Your task to perform on an android device: Open Google Chrome and click the shortcut for Amazon.com Image 0: 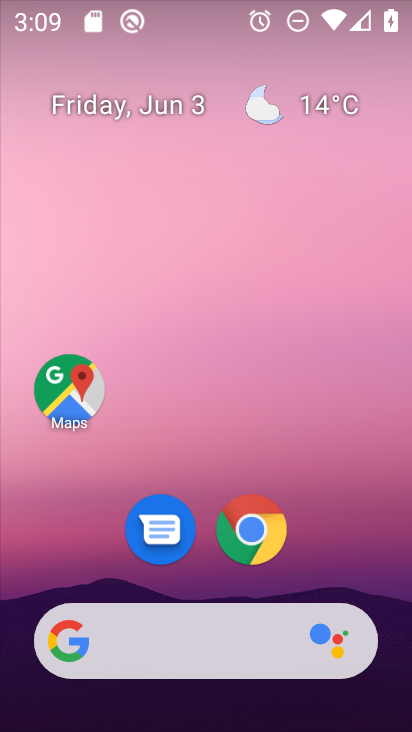
Step 0: drag from (363, 564) to (352, 203)
Your task to perform on an android device: Open Google Chrome and click the shortcut for Amazon.com Image 1: 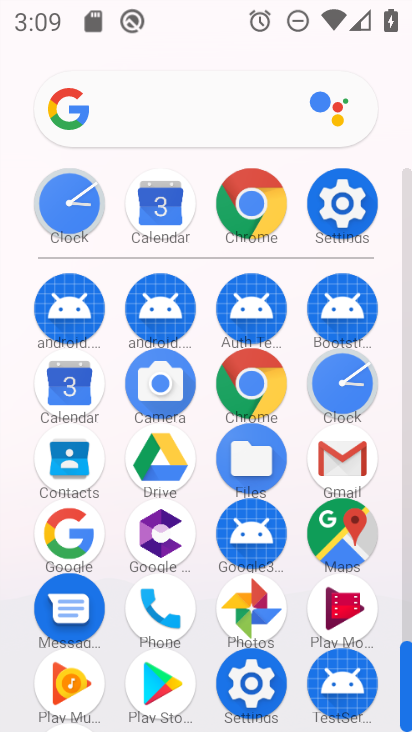
Step 1: click (274, 394)
Your task to perform on an android device: Open Google Chrome and click the shortcut for Amazon.com Image 2: 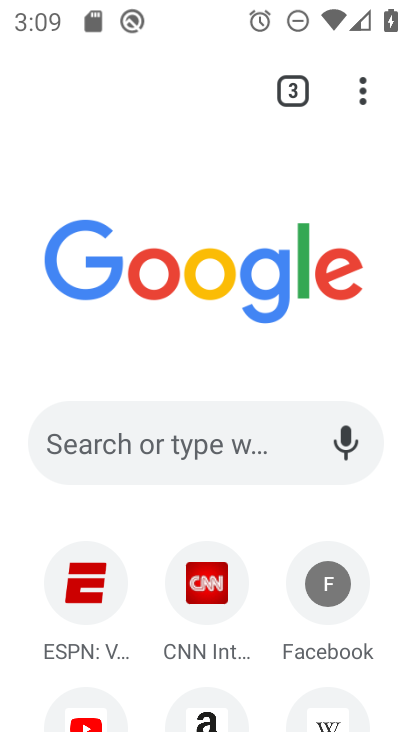
Step 2: drag from (266, 502) to (264, 400)
Your task to perform on an android device: Open Google Chrome and click the shortcut for Amazon.com Image 3: 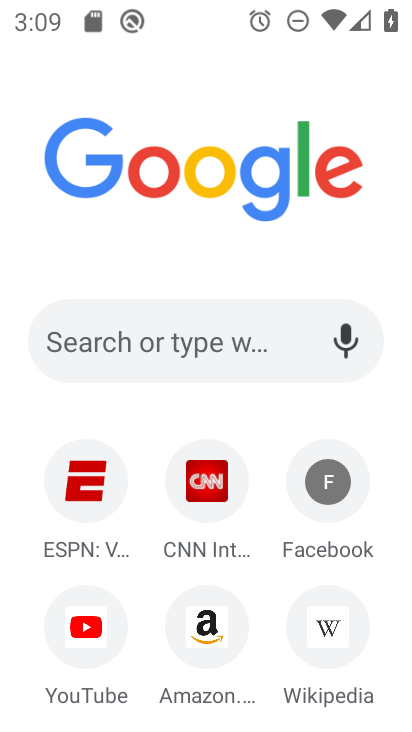
Step 3: drag from (250, 580) to (257, 367)
Your task to perform on an android device: Open Google Chrome and click the shortcut for Amazon.com Image 4: 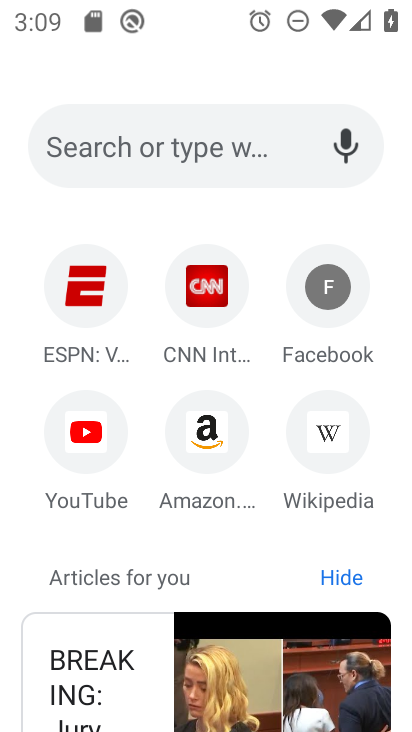
Step 4: click (224, 439)
Your task to perform on an android device: Open Google Chrome and click the shortcut for Amazon.com Image 5: 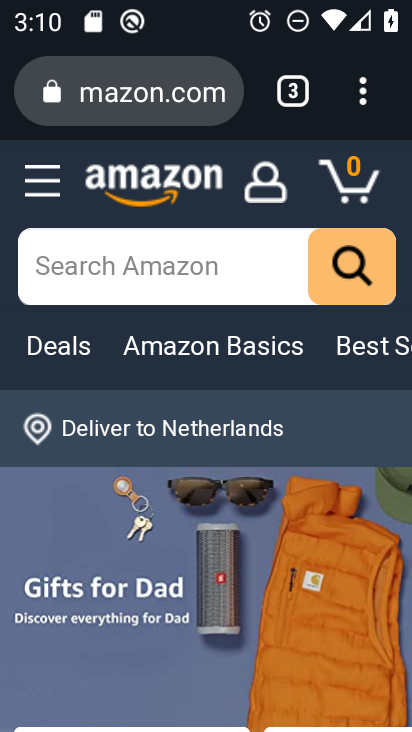
Step 5: task complete